Your task to perform on an android device: What's the latest news in tech? Image 0: 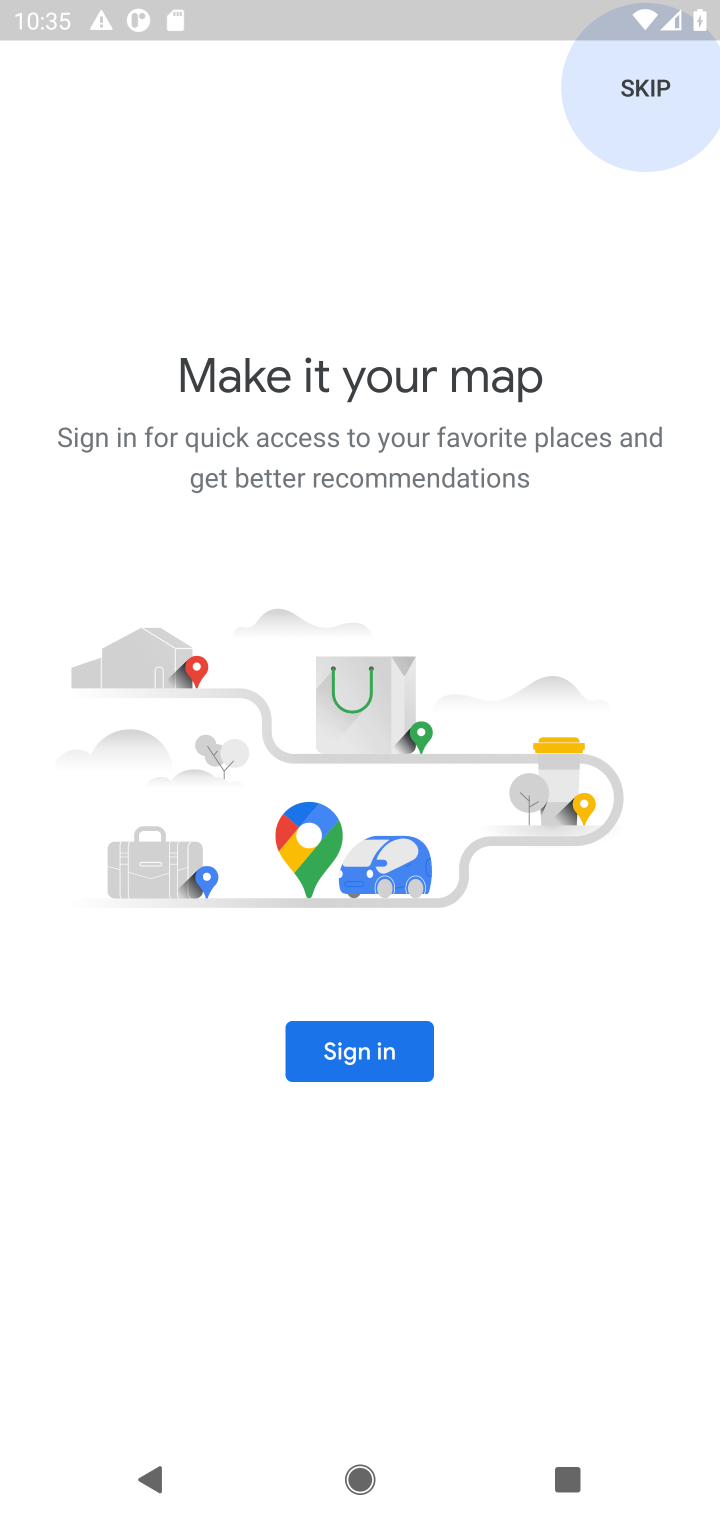
Step 0: press home button
Your task to perform on an android device: What's the latest news in tech? Image 1: 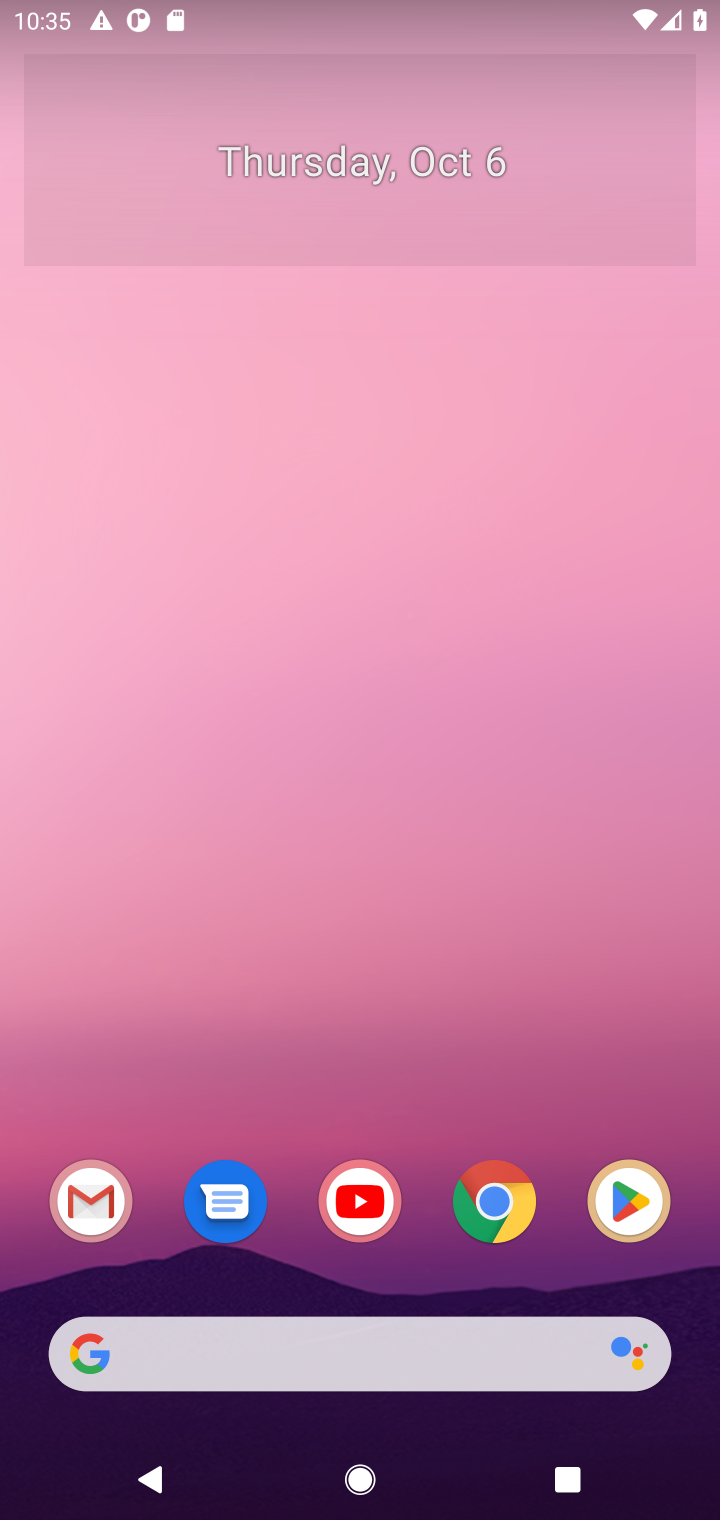
Step 1: drag from (290, 1250) to (467, 272)
Your task to perform on an android device: What's the latest news in tech? Image 2: 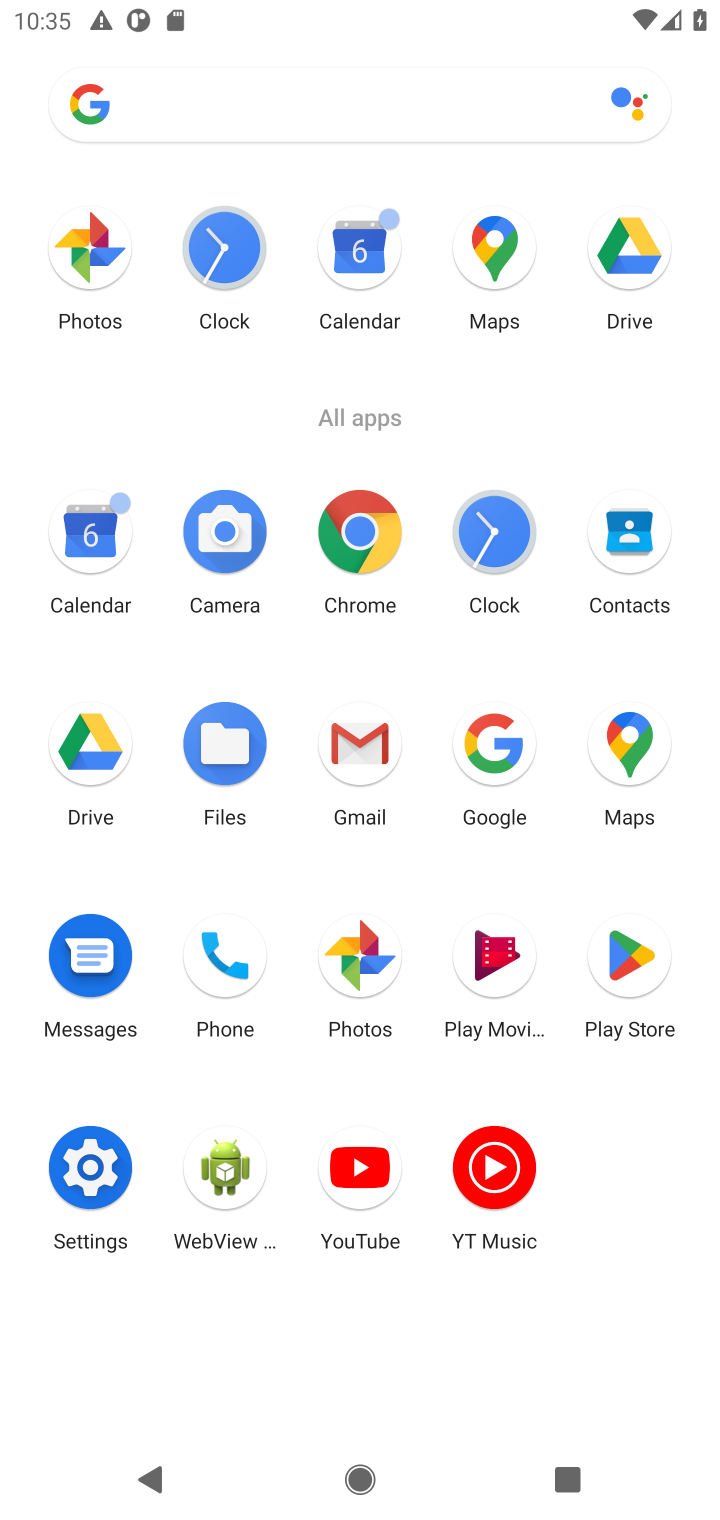
Step 2: click (385, 539)
Your task to perform on an android device: What's the latest news in tech? Image 3: 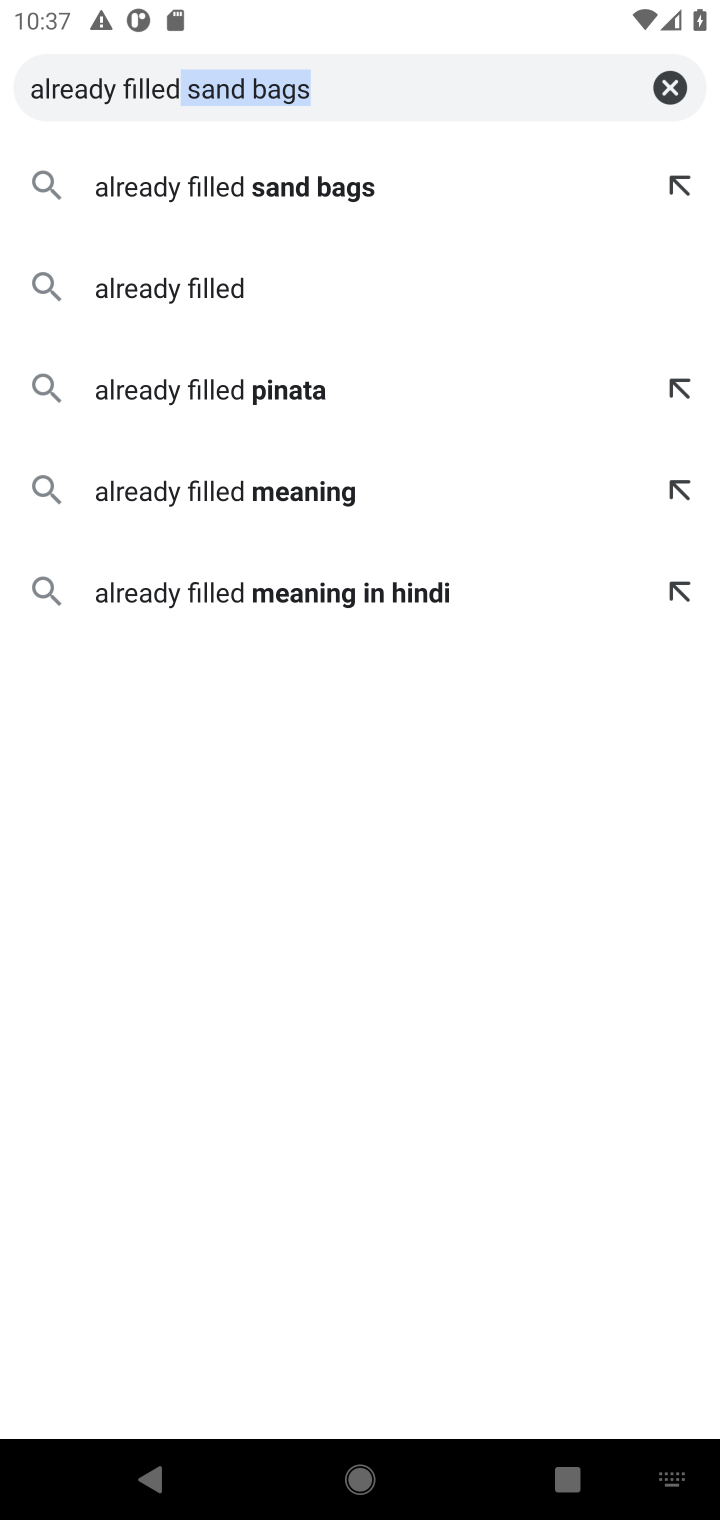
Step 3: click (666, 91)
Your task to perform on an android device: What's the latest news in tech? Image 4: 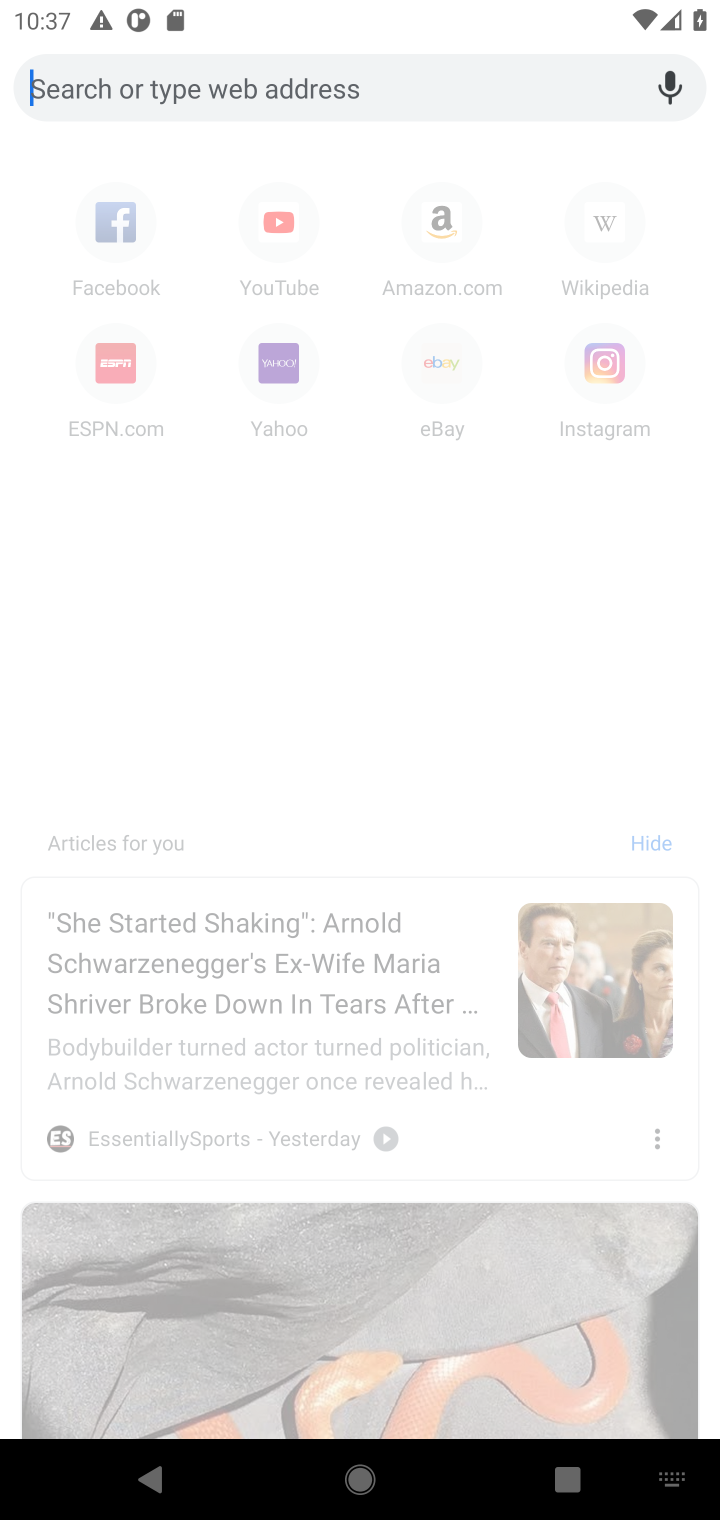
Step 4: click (666, 86)
Your task to perform on an android device: What's the latest news in tech? Image 5: 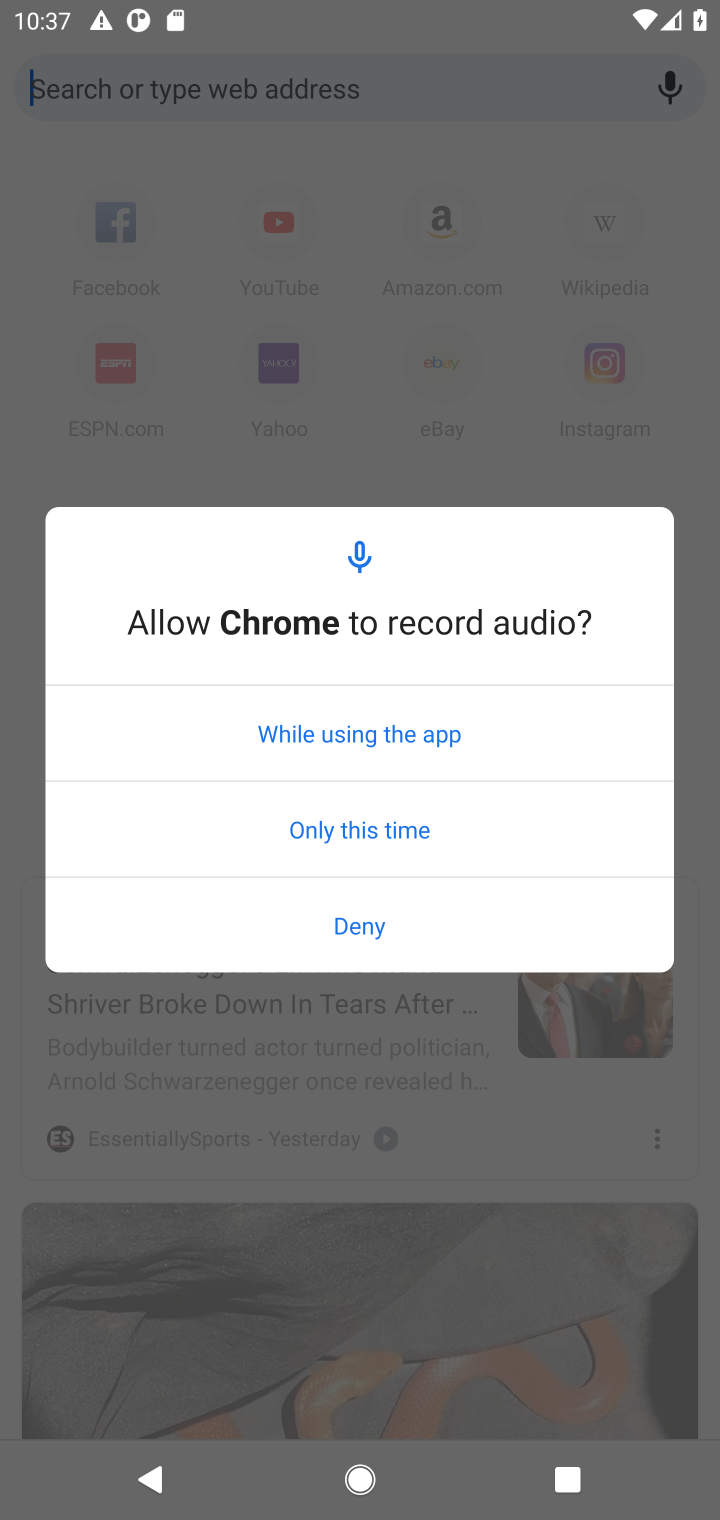
Step 5: task complete